Your task to perform on an android device: find snoozed emails in the gmail app Image 0: 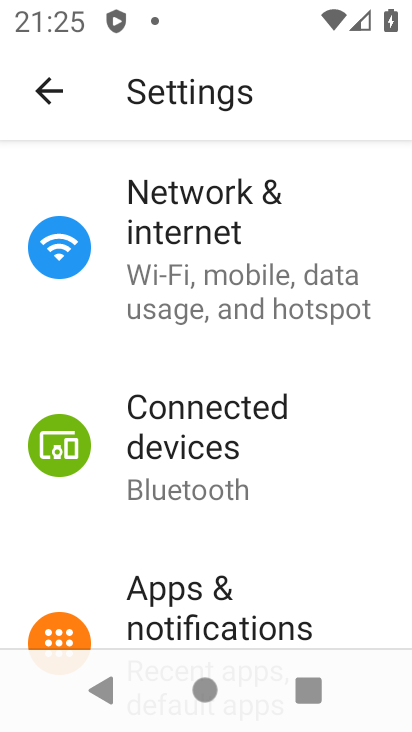
Step 0: press home button
Your task to perform on an android device: find snoozed emails in the gmail app Image 1: 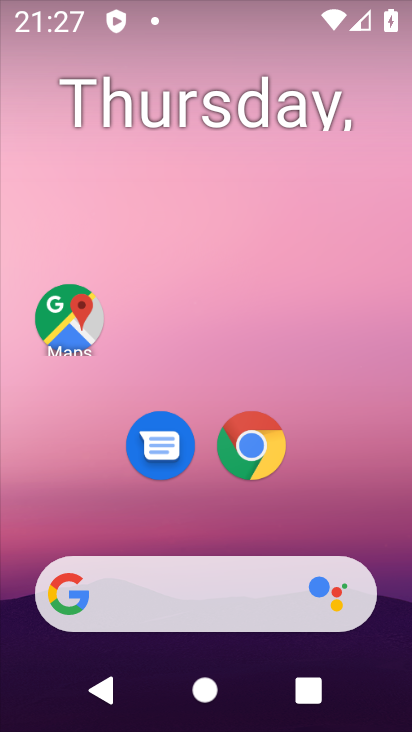
Step 1: drag from (10, 656) to (275, 112)
Your task to perform on an android device: find snoozed emails in the gmail app Image 2: 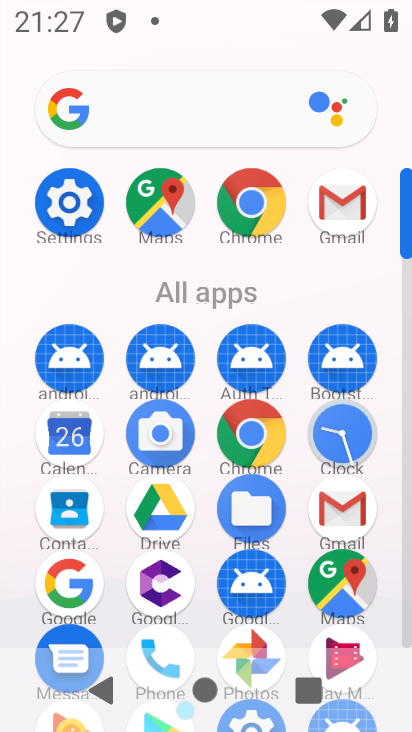
Step 2: click (337, 216)
Your task to perform on an android device: find snoozed emails in the gmail app Image 3: 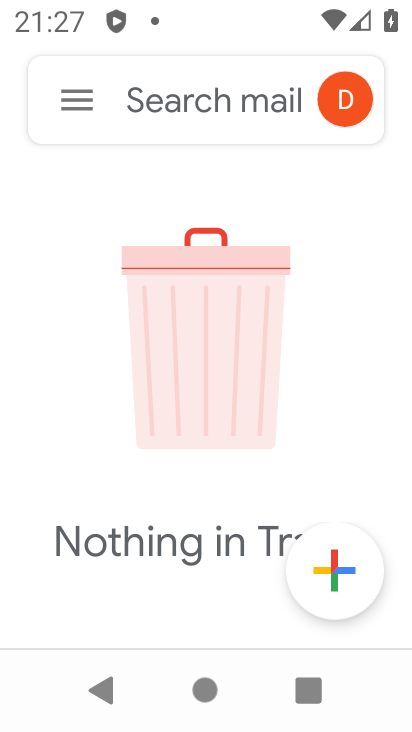
Step 3: click (71, 105)
Your task to perform on an android device: find snoozed emails in the gmail app Image 4: 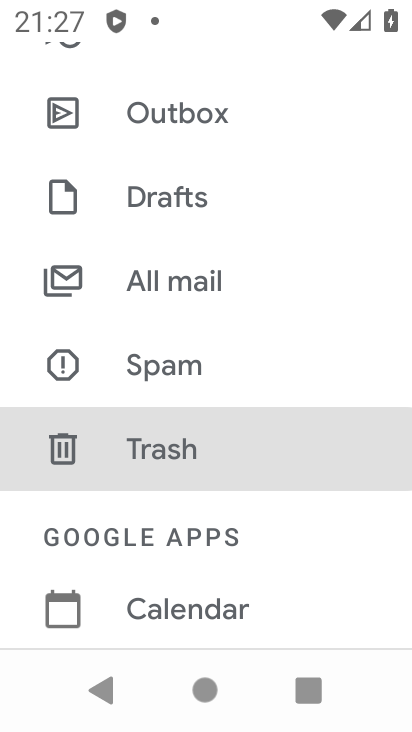
Step 4: drag from (178, 136) to (127, 596)
Your task to perform on an android device: find snoozed emails in the gmail app Image 5: 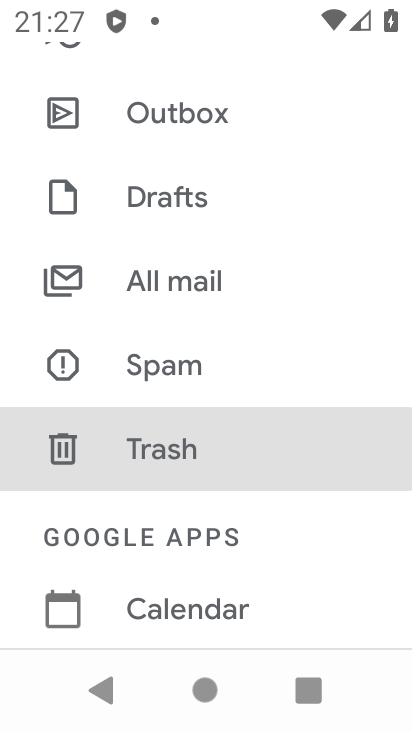
Step 5: drag from (134, 170) to (132, 601)
Your task to perform on an android device: find snoozed emails in the gmail app Image 6: 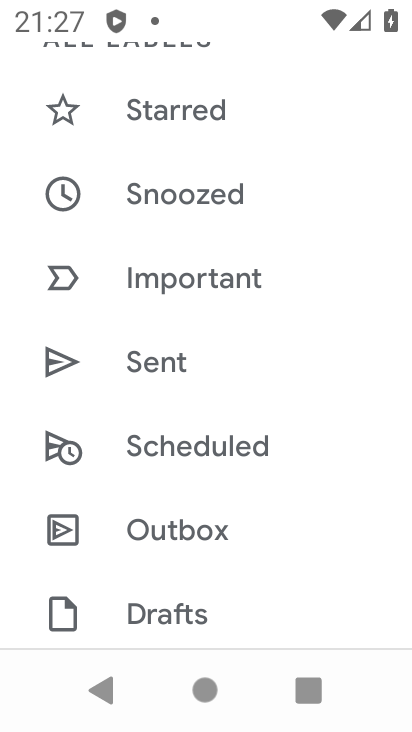
Step 6: click (174, 200)
Your task to perform on an android device: find snoozed emails in the gmail app Image 7: 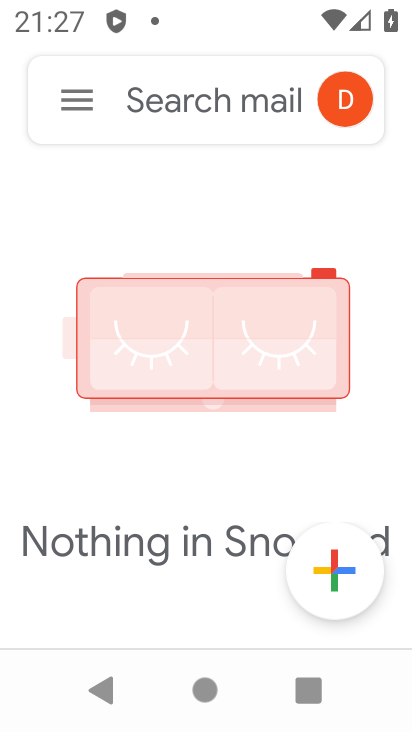
Step 7: task complete